Your task to perform on an android device: toggle priority inbox in the gmail app Image 0: 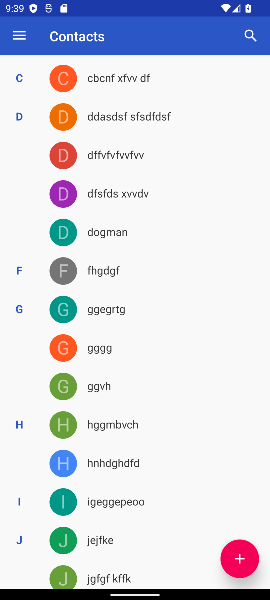
Step 0: press home button
Your task to perform on an android device: toggle priority inbox in the gmail app Image 1: 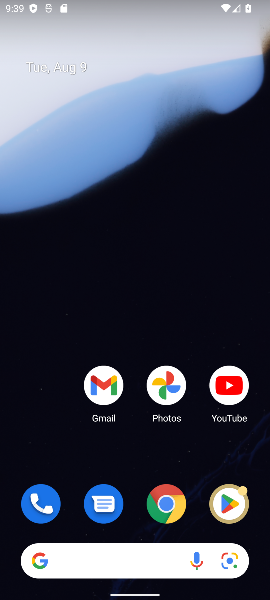
Step 1: click (104, 373)
Your task to perform on an android device: toggle priority inbox in the gmail app Image 2: 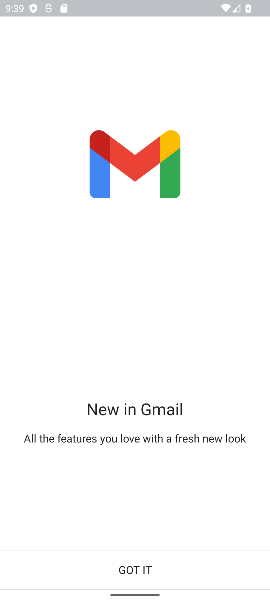
Step 2: click (142, 564)
Your task to perform on an android device: toggle priority inbox in the gmail app Image 3: 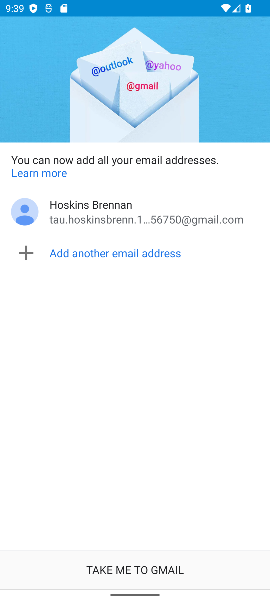
Step 3: click (167, 568)
Your task to perform on an android device: toggle priority inbox in the gmail app Image 4: 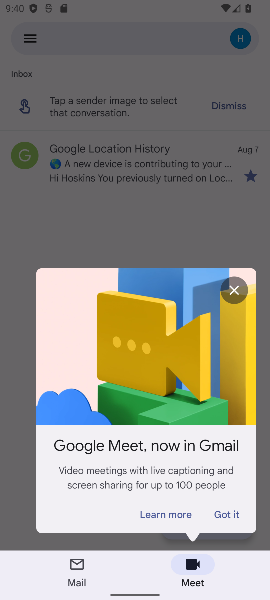
Step 4: click (223, 287)
Your task to perform on an android device: toggle priority inbox in the gmail app Image 5: 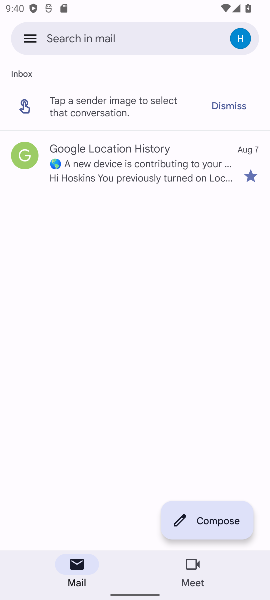
Step 5: click (29, 34)
Your task to perform on an android device: toggle priority inbox in the gmail app Image 6: 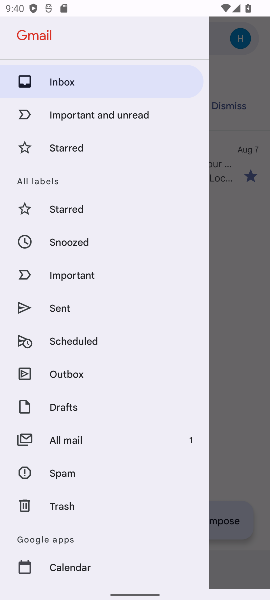
Step 6: drag from (147, 533) to (143, 236)
Your task to perform on an android device: toggle priority inbox in the gmail app Image 7: 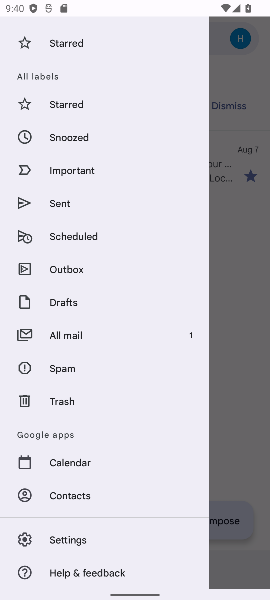
Step 7: click (69, 539)
Your task to perform on an android device: toggle priority inbox in the gmail app Image 8: 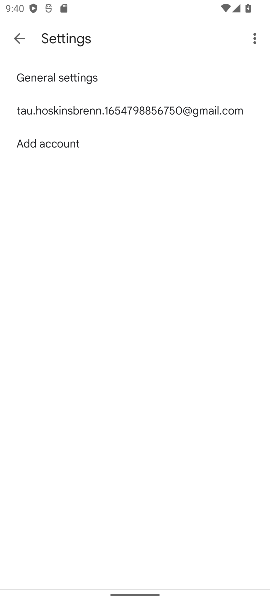
Step 8: click (92, 106)
Your task to perform on an android device: toggle priority inbox in the gmail app Image 9: 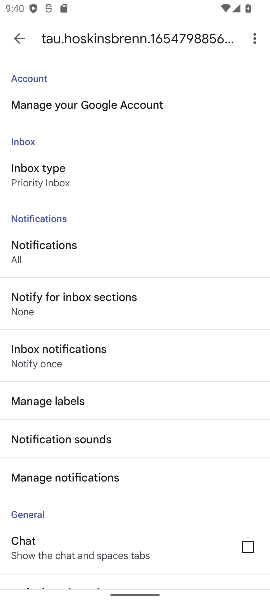
Step 9: drag from (208, 529) to (206, 200)
Your task to perform on an android device: toggle priority inbox in the gmail app Image 10: 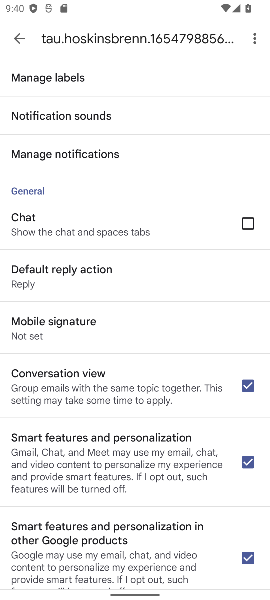
Step 10: drag from (193, 130) to (182, 488)
Your task to perform on an android device: toggle priority inbox in the gmail app Image 11: 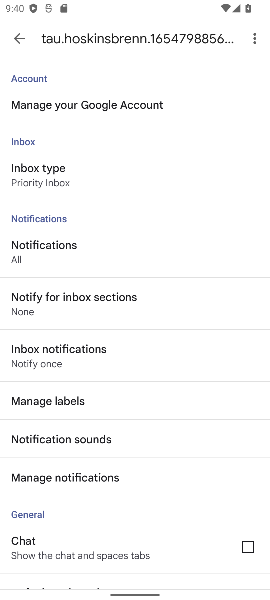
Step 11: drag from (167, 516) to (181, 247)
Your task to perform on an android device: toggle priority inbox in the gmail app Image 12: 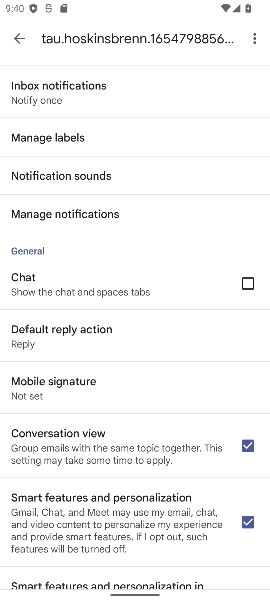
Step 12: drag from (159, 153) to (166, 548)
Your task to perform on an android device: toggle priority inbox in the gmail app Image 13: 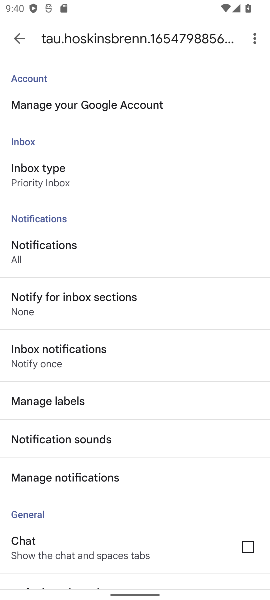
Step 13: click (25, 170)
Your task to perform on an android device: toggle priority inbox in the gmail app Image 14: 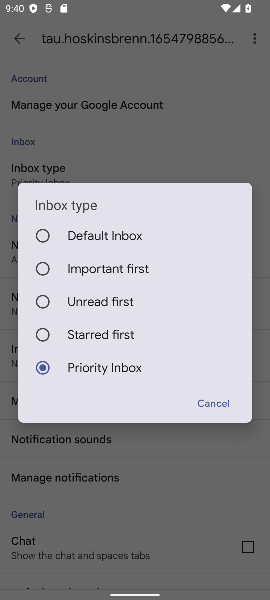
Step 14: click (41, 235)
Your task to perform on an android device: toggle priority inbox in the gmail app Image 15: 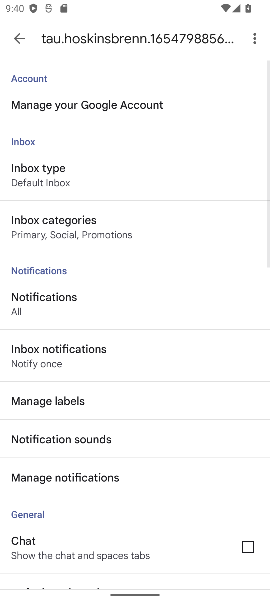
Step 15: task complete